Your task to perform on an android device: turn off location Image 0: 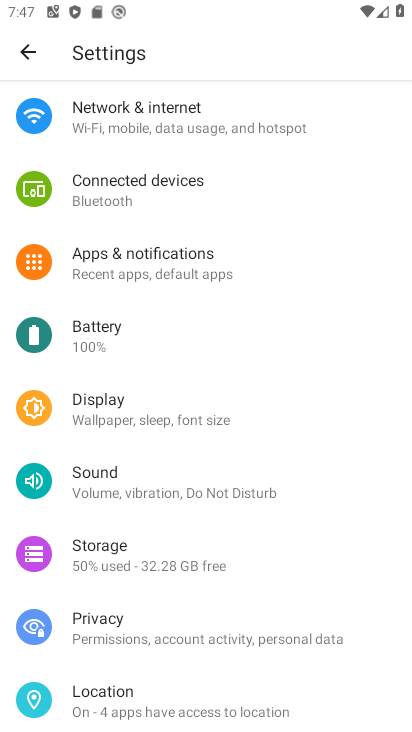
Step 0: click (98, 694)
Your task to perform on an android device: turn off location Image 1: 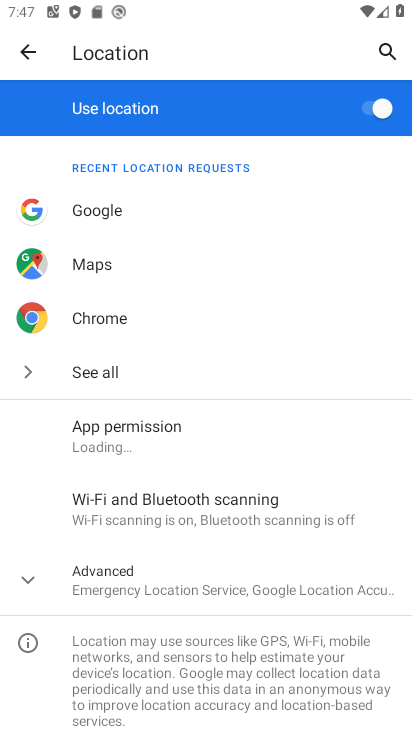
Step 1: click (369, 107)
Your task to perform on an android device: turn off location Image 2: 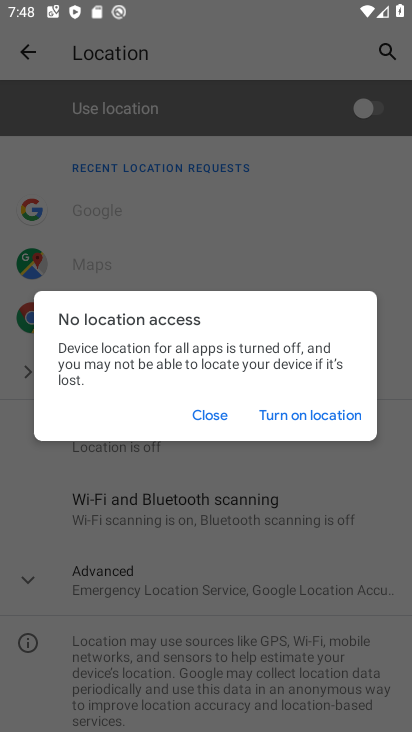
Step 2: click (212, 416)
Your task to perform on an android device: turn off location Image 3: 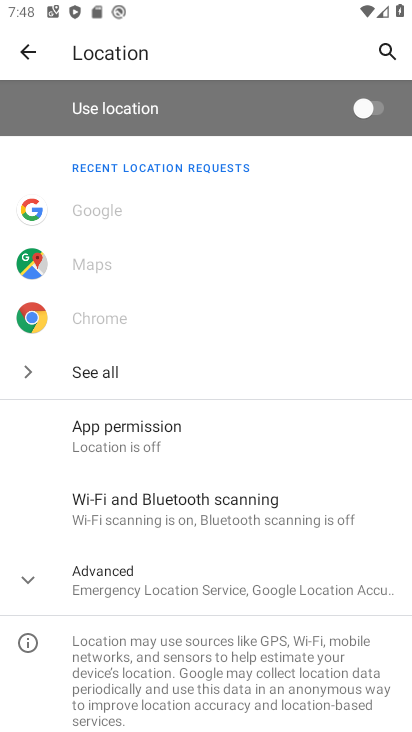
Step 3: task complete